Your task to perform on an android device: Open privacy settings Image 0: 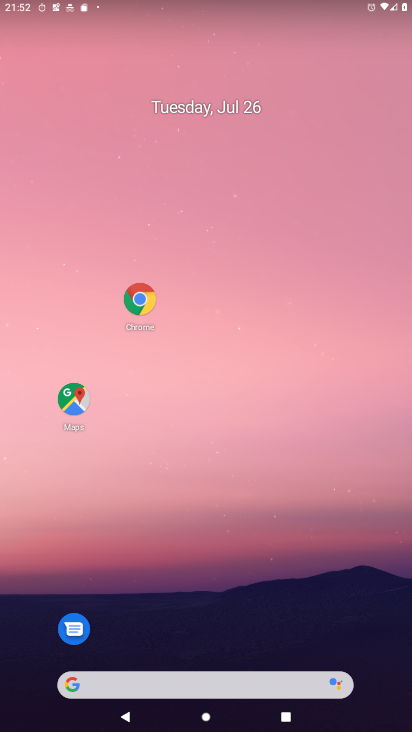
Step 0: click (190, 63)
Your task to perform on an android device: Open privacy settings Image 1: 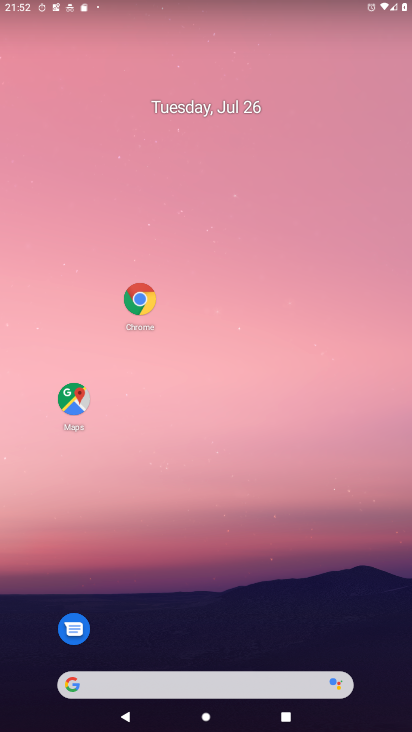
Step 1: click (211, 180)
Your task to perform on an android device: Open privacy settings Image 2: 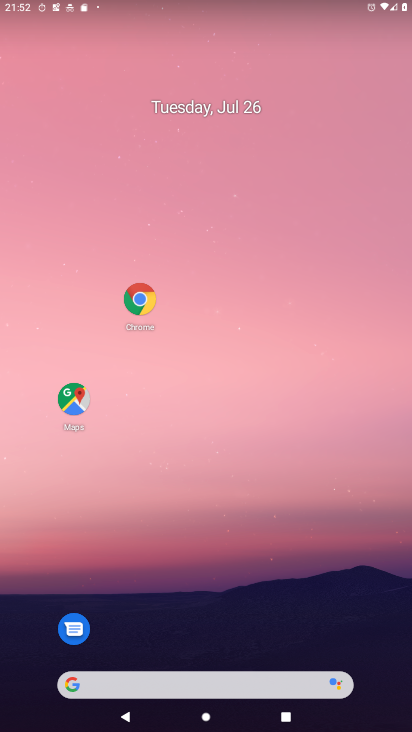
Step 2: drag from (259, 478) to (152, 12)
Your task to perform on an android device: Open privacy settings Image 3: 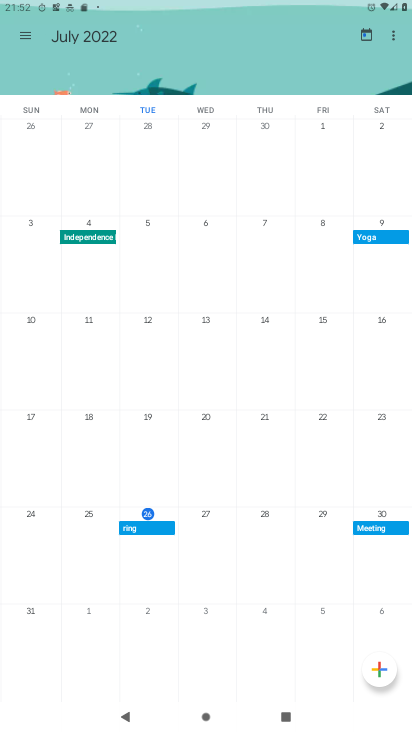
Step 3: drag from (207, 284) to (207, 141)
Your task to perform on an android device: Open privacy settings Image 4: 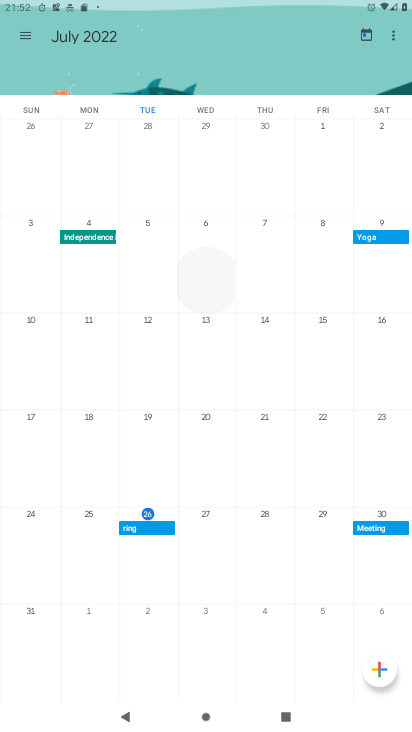
Step 4: drag from (295, 438) to (324, 253)
Your task to perform on an android device: Open privacy settings Image 5: 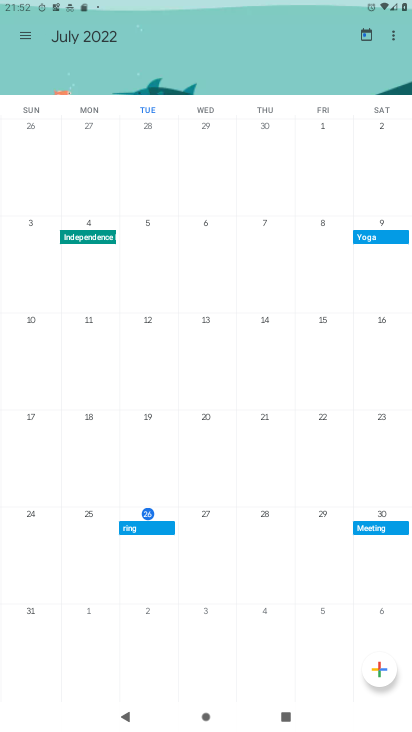
Step 5: press back button
Your task to perform on an android device: Open privacy settings Image 6: 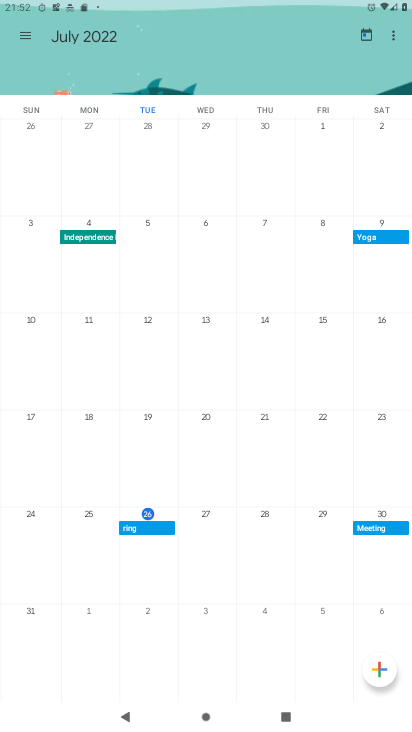
Step 6: press back button
Your task to perform on an android device: Open privacy settings Image 7: 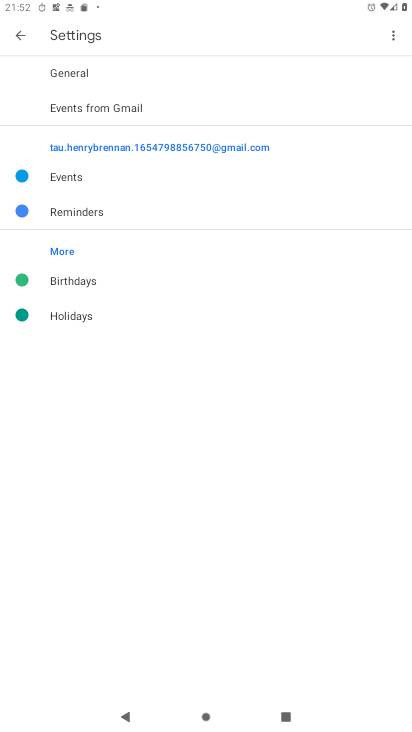
Step 7: press back button
Your task to perform on an android device: Open privacy settings Image 8: 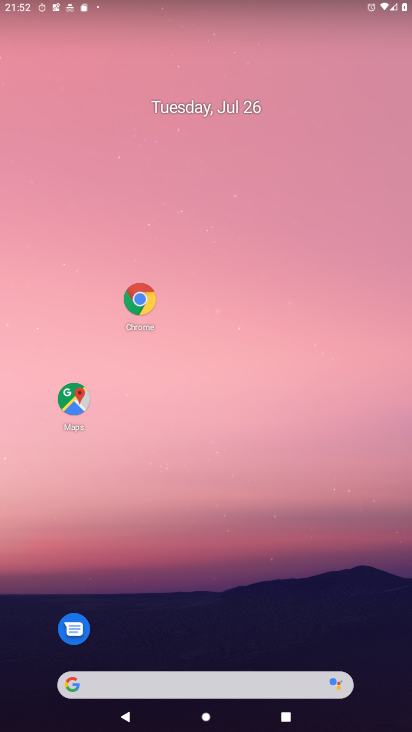
Step 8: drag from (204, 535) to (175, 182)
Your task to perform on an android device: Open privacy settings Image 9: 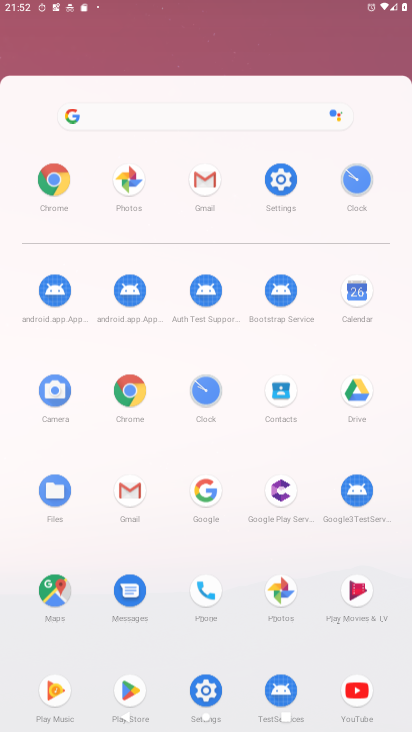
Step 9: drag from (213, 219) to (192, 34)
Your task to perform on an android device: Open privacy settings Image 10: 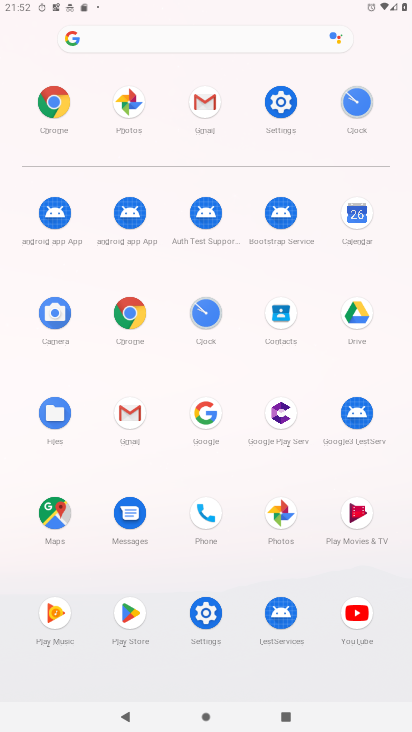
Step 10: click (251, 107)
Your task to perform on an android device: Open privacy settings Image 11: 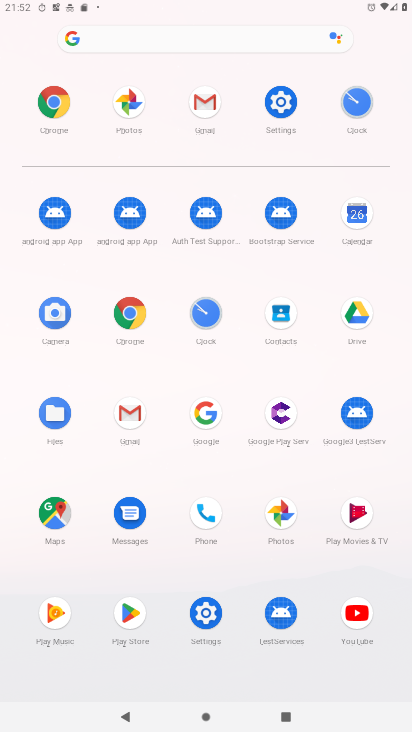
Step 11: click (278, 107)
Your task to perform on an android device: Open privacy settings Image 12: 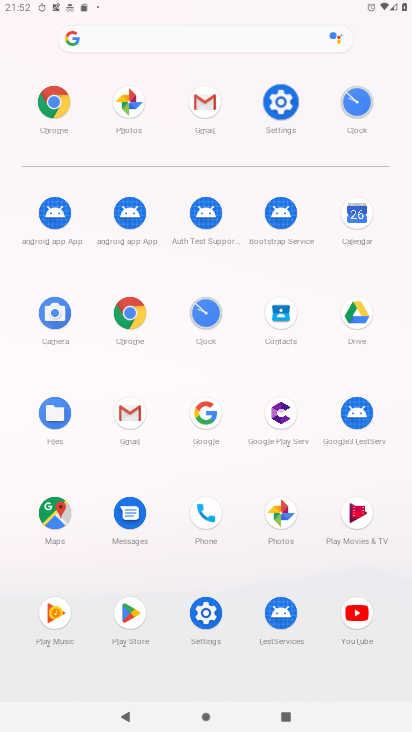
Step 12: click (284, 105)
Your task to perform on an android device: Open privacy settings Image 13: 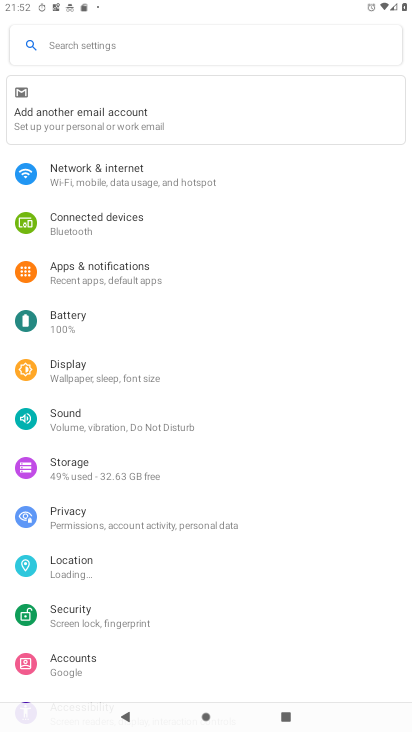
Step 13: click (82, 520)
Your task to perform on an android device: Open privacy settings Image 14: 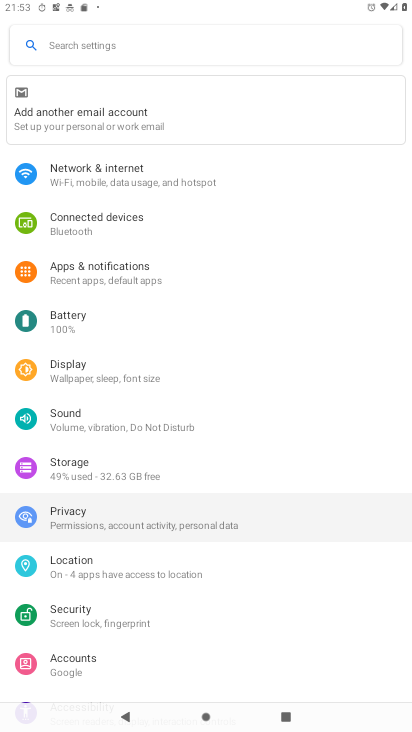
Step 14: click (95, 528)
Your task to perform on an android device: Open privacy settings Image 15: 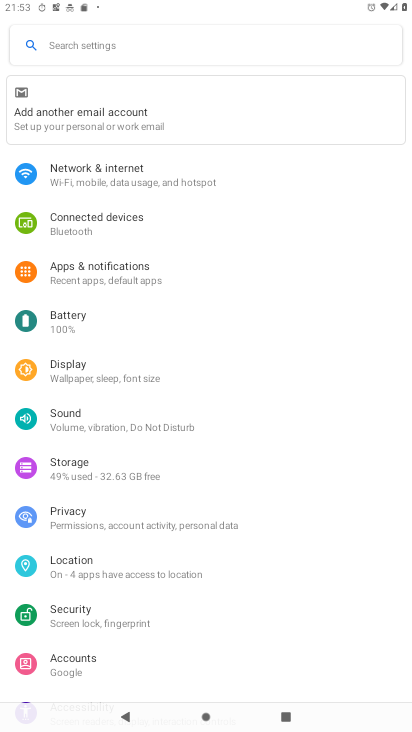
Step 15: click (101, 526)
Your task to perform on an android device: Open privacy settings Image 16: 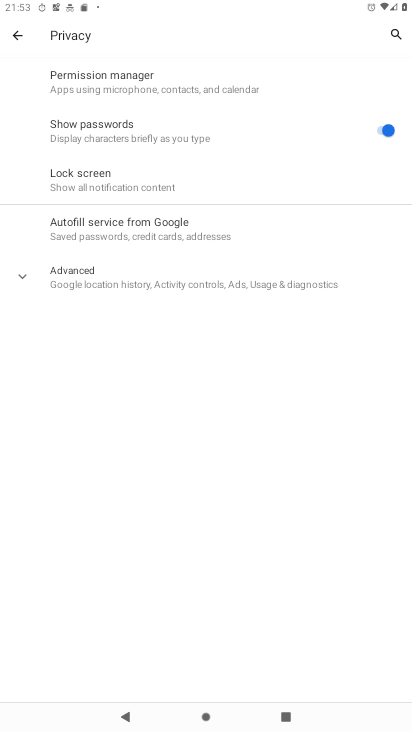
Step 16: task complete